Your task to perform on an android device: Search for bose soundlink on ebay, select the first entry, and add it to the cart. Image 0: 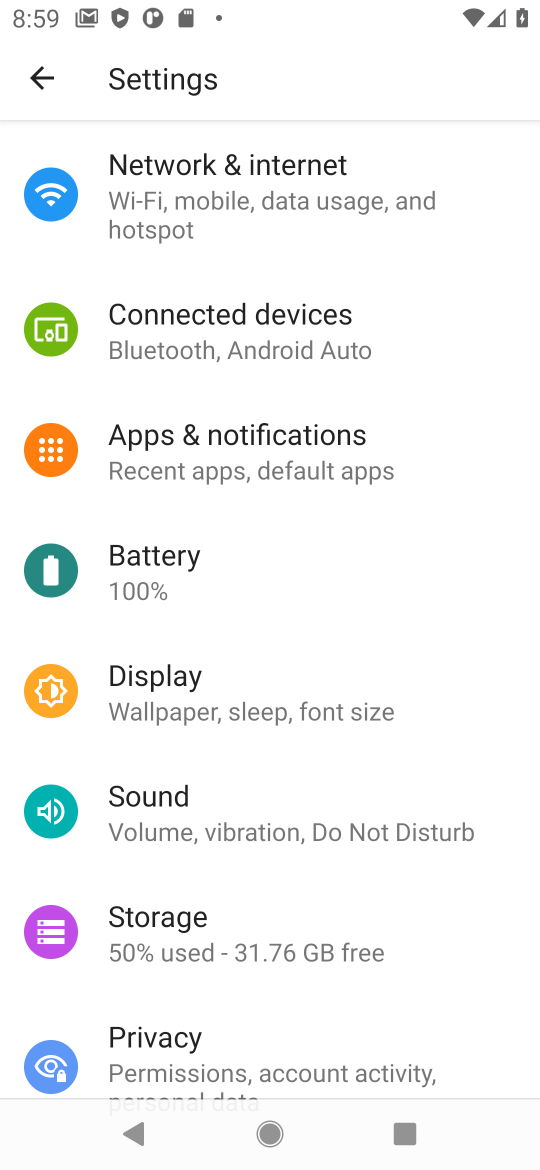
Step 0: press home button
Your task to perform on an android device: Search for bose soundlink on ebay, select the first entry, and add it to the cart. Image 1: 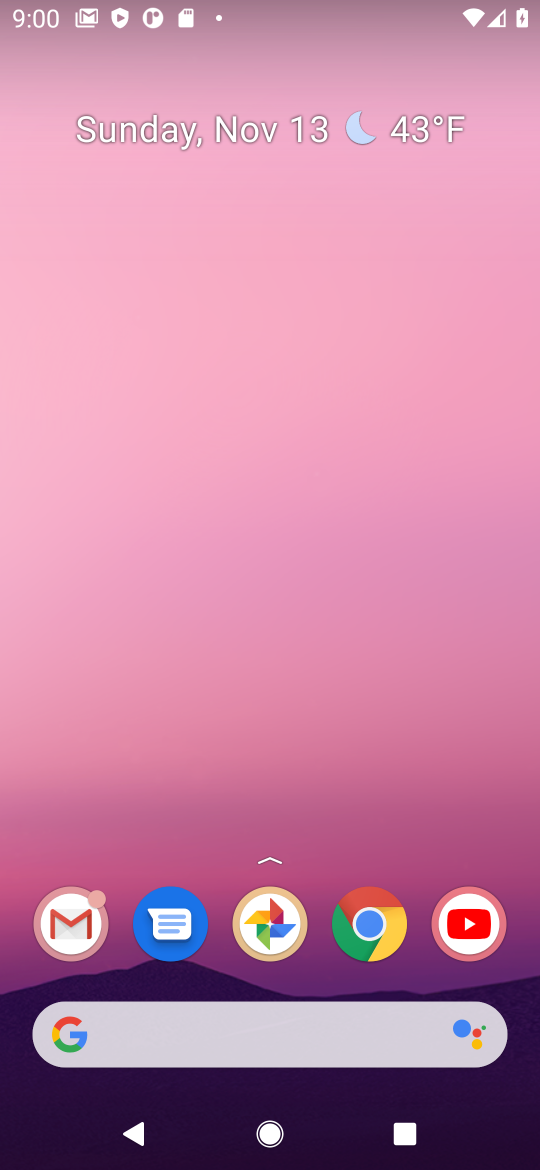
Step 1: click (378, 920)
Your task to perform on an android device: Search for bose soundlink on ebay, select the first entry, and add it to the cart. Image 2: 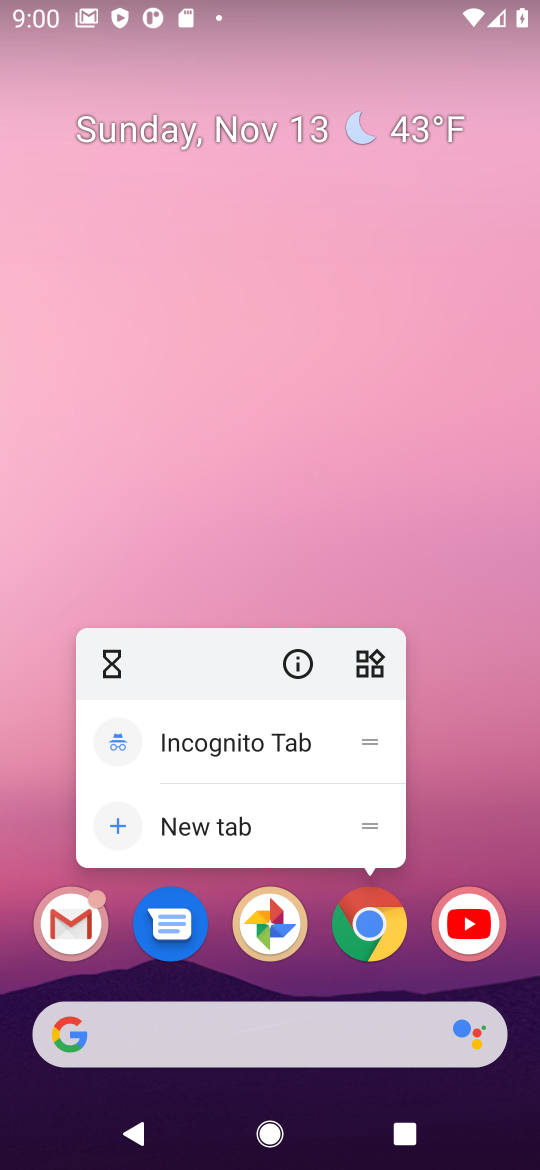
Step 2: click (377, 926)
Your task to perform on an android device: Search for bose soundlink on ebay, select the first entry, and add it to the cart. Image 3: 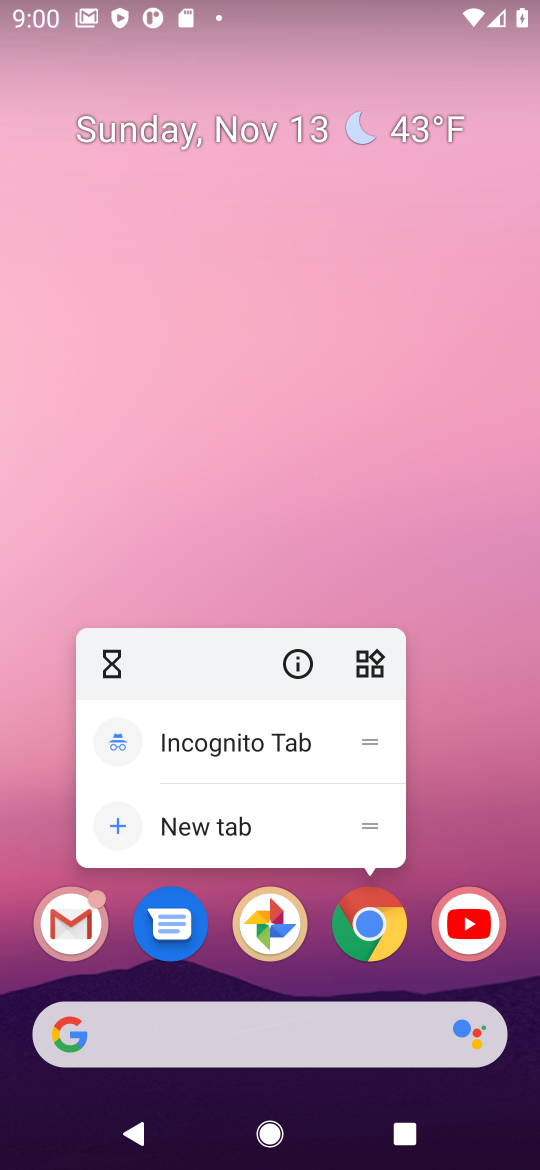
Step 3: click (377, 922)
Your task to perform on an android device: Search for bose soundlink on ebay, select the first entry, and add it to the cart. Image 4: 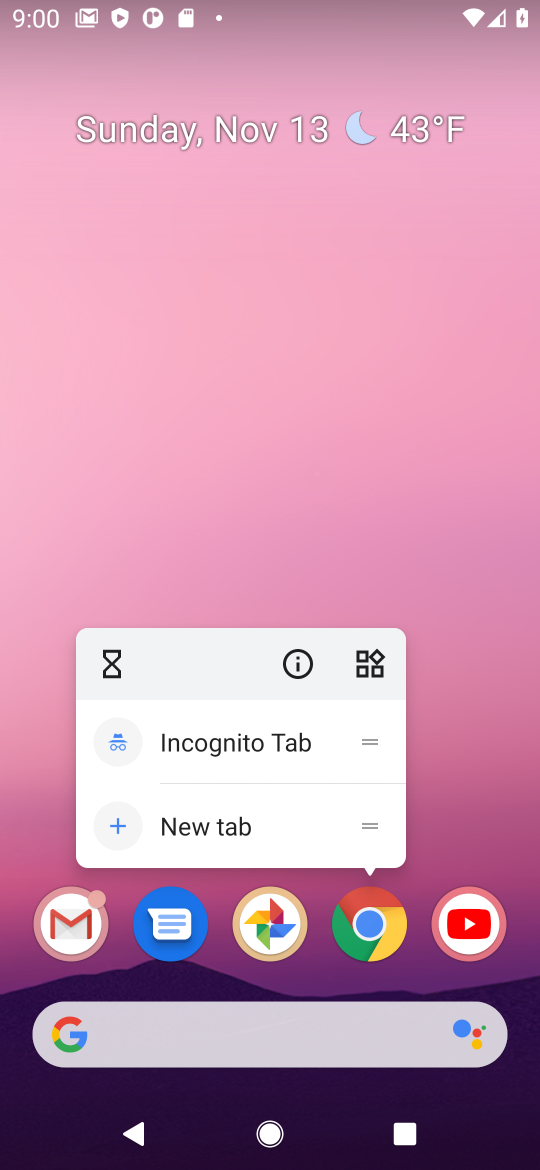
Step 4: click (377, 925)
Your task to perform on an android device: Search for bose soundlink on ebay, select the first entry, and add it to the cart. Image 5: 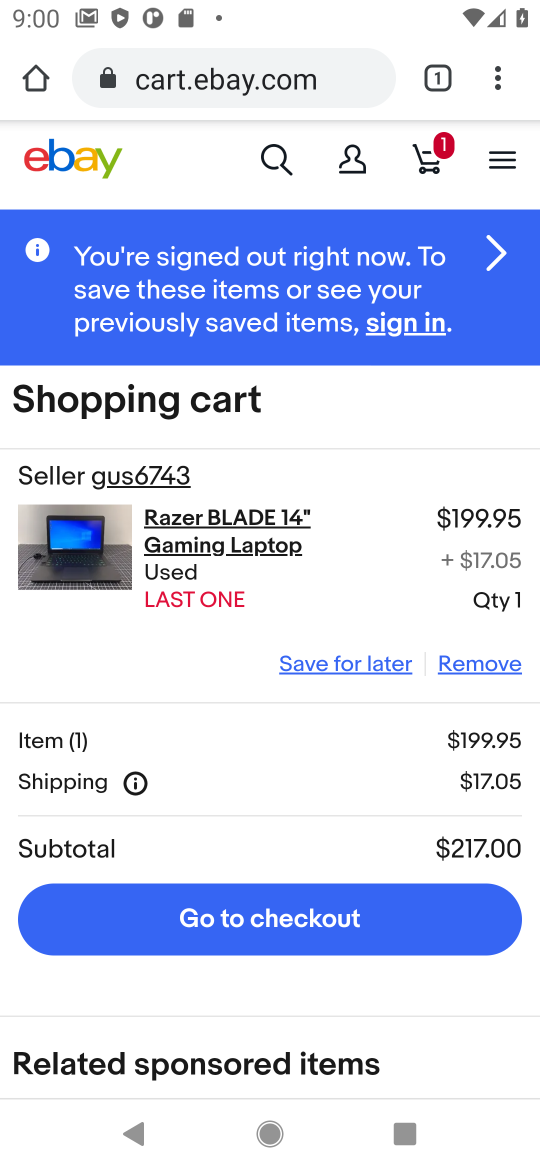
Step 5: click (327, 72)
Your task to perform on an android device: Search for bose soundlink on ebay, select the first entry, and add it to the cart. Image 6: 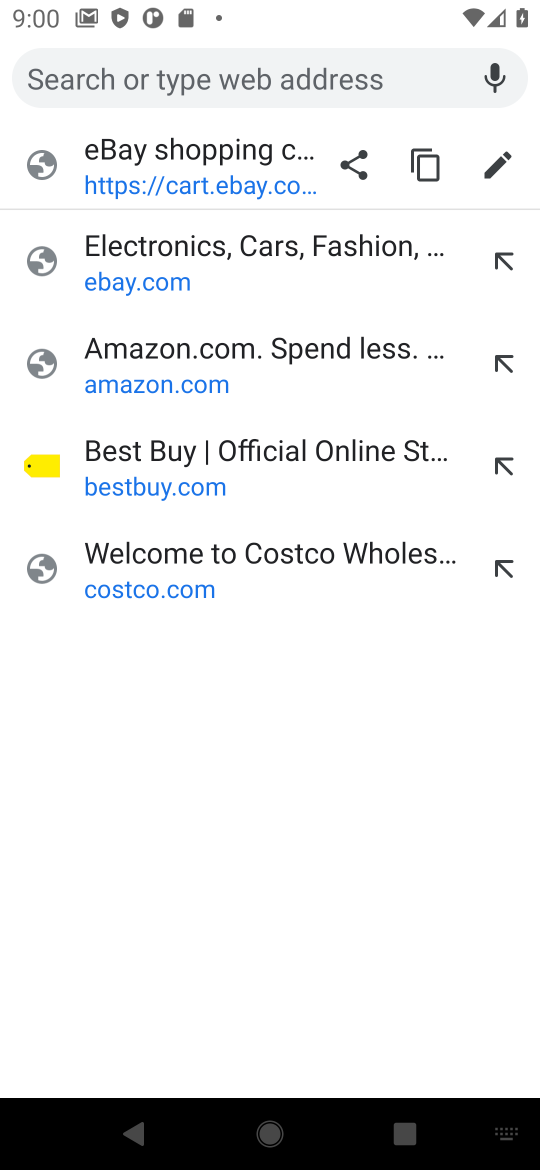
Step 6: click (153, 284)
Your task to perform on an android device: Search for bose soundlink on ebay, select the first entry, and add it to the cart. Image 7: 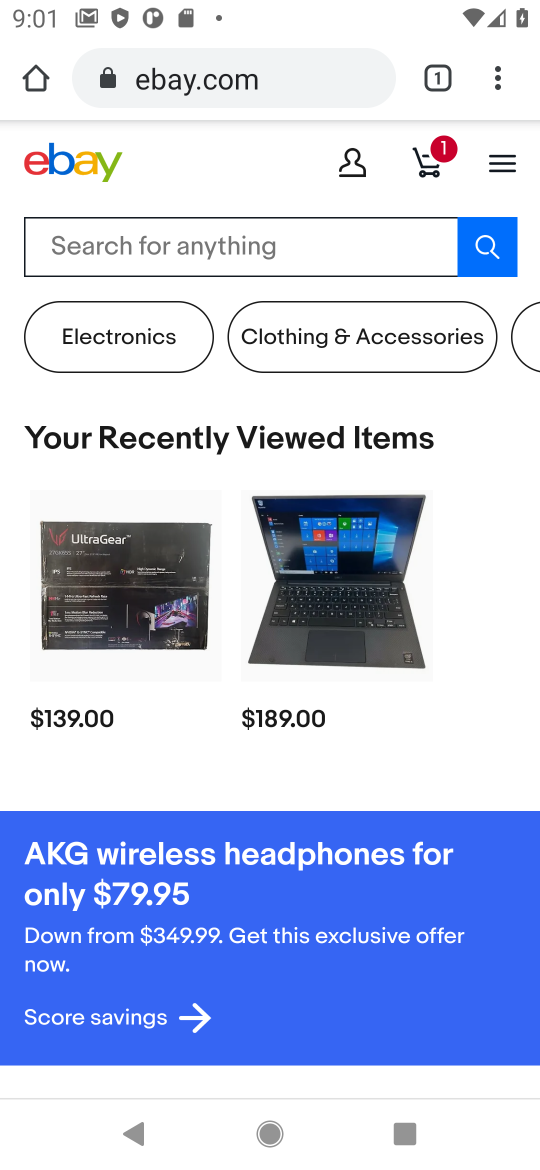
Step 7: click (136, 226)
Your task to perform on an android device: Search for bose soundlink on ebay, select the first entry, and add it to the cart. Image 8: 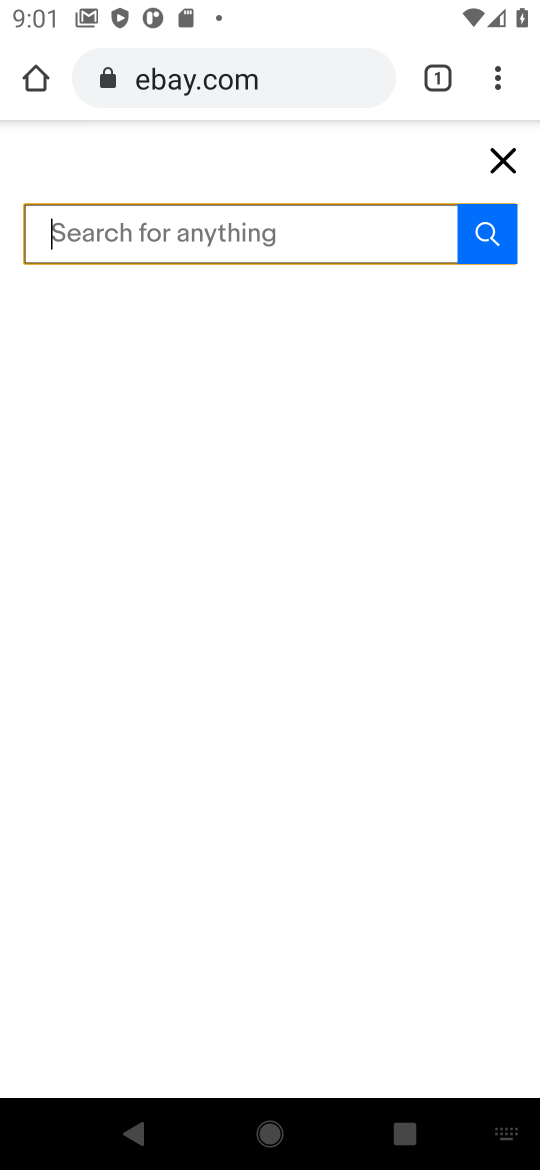
Step 8: type " bose soundlink"
Your task to perform on an android device: Search for bose soundlink on ebay, select the first entry, and add it to the cart. Image 9: 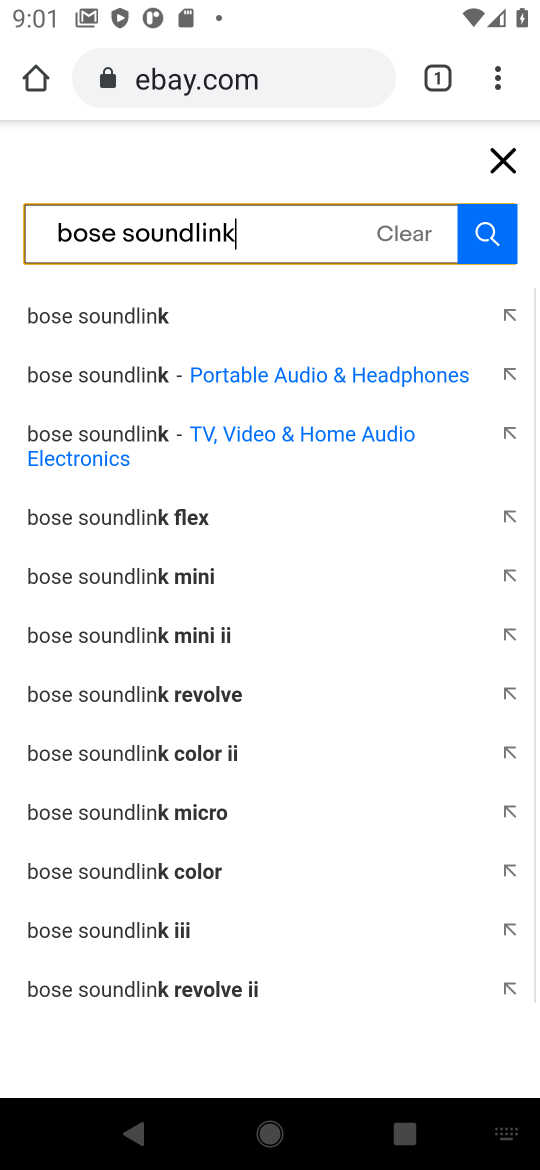
Step 9: press enter
Your task to perform on an android device: Search for bose soundlink on ebay, select the first entry, and add it to the cart. Image 10: 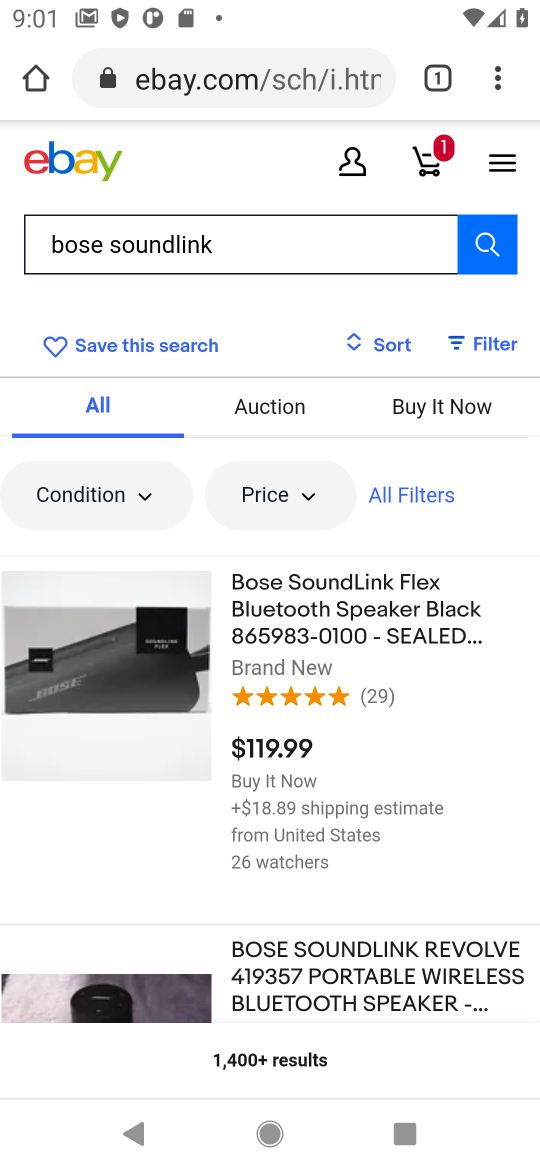
Step 10: click (401, 620)
Your task to perform on an android device: Search for bose soundlink on ebay, select the first entry, and add it to the cart. Image 11: 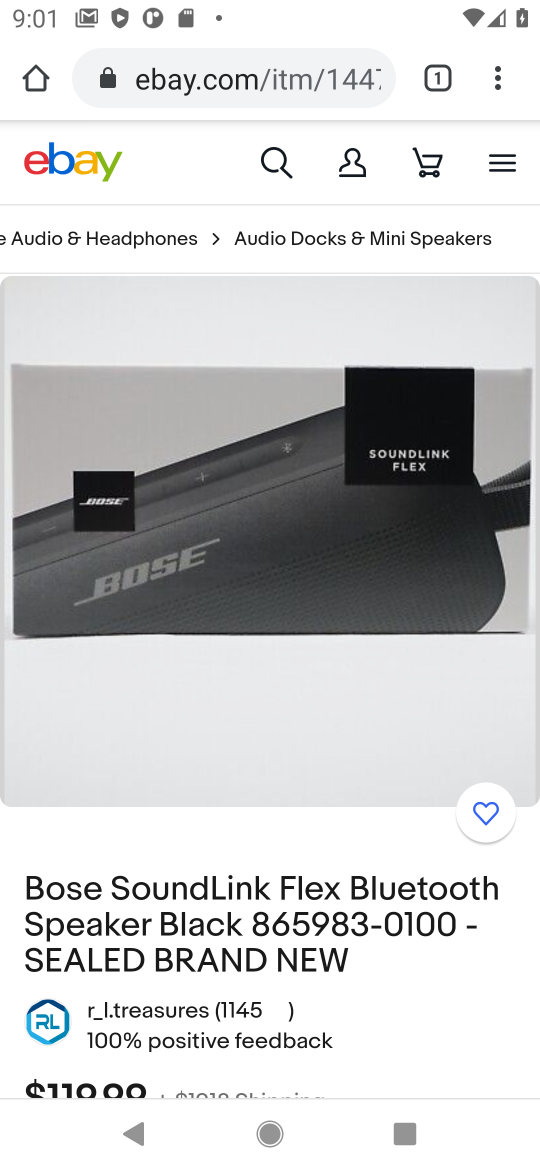
Step 11: drag from (256, 750) to (487, 11)
Your task to perform on an android device: Search for bose soundlink on ebay, select the first entry, and add it to the cart. Image 12: 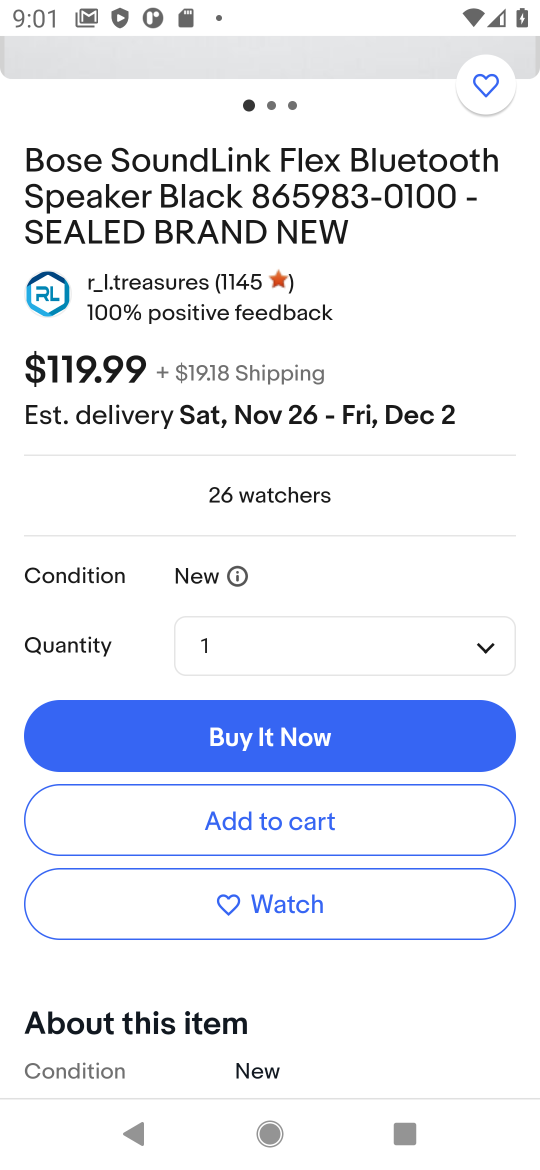
Step 12: click (298, 818)
Your task to perform on an android device: Search for bose soundlink on ebay, select the first entry, and add it to the cart. Image 13: 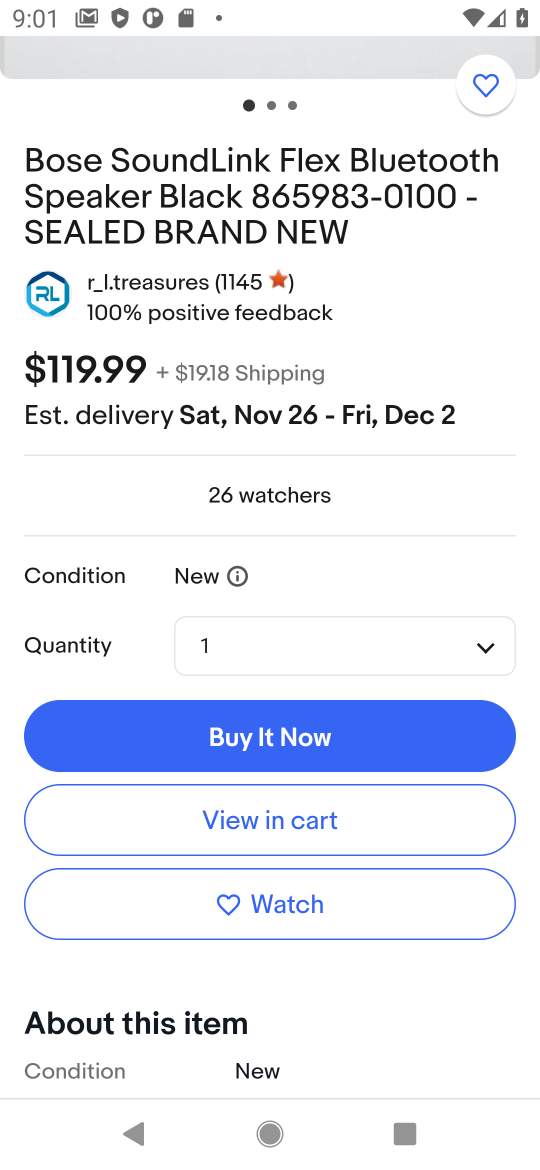
Step 13: click (298, 825)
Your task to perform on an android device: Search for bose soundlink on ebay, select the first entry, and add it to the cart. Image 14: 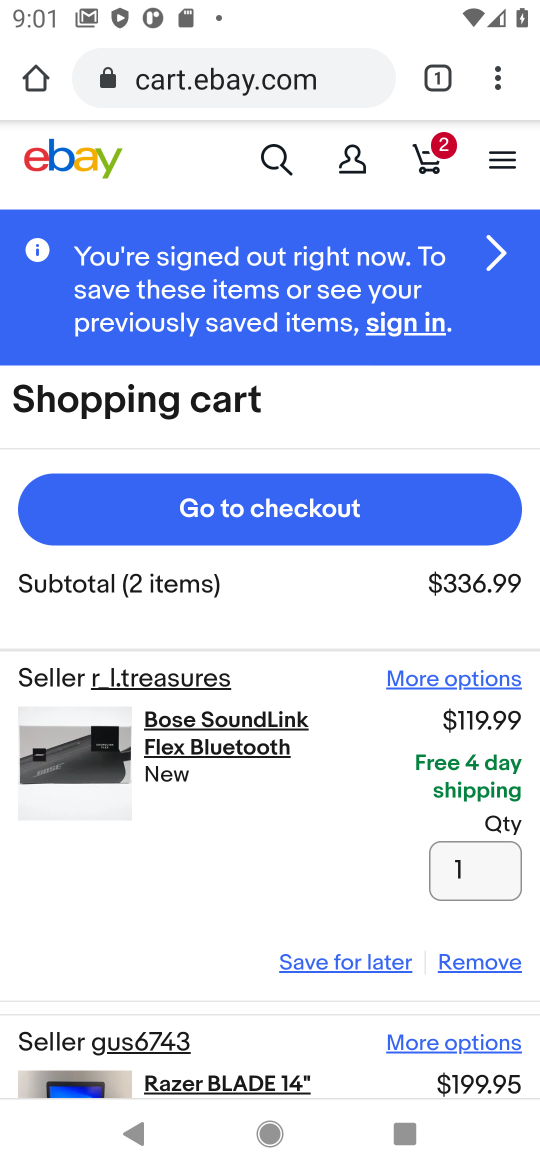
Step 14: task complete